Your task to perform on an android device: move an email to a new category in the gmail app Image 0: 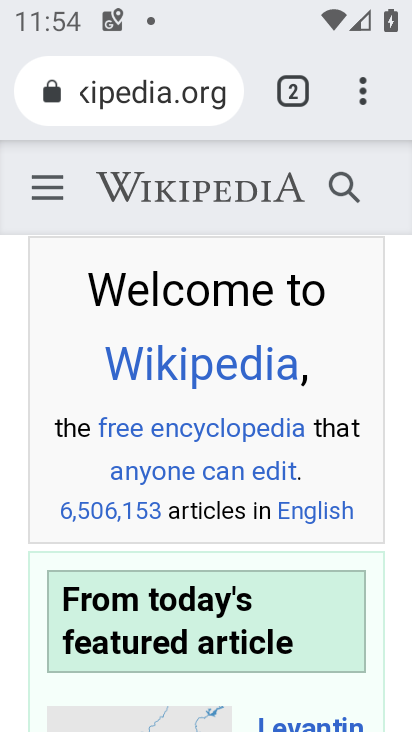
Step 0: press home button
Your task to perform on an android device: move an email to a new category in the gmail app Image 1: 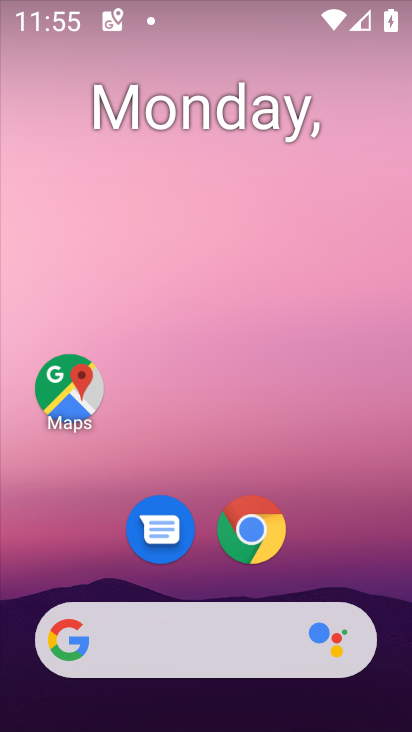
Step 1: drag from (240, 677) to (231, 186)
Your task to perform on an android device: move an email to a new category in the gmail app Image 2: 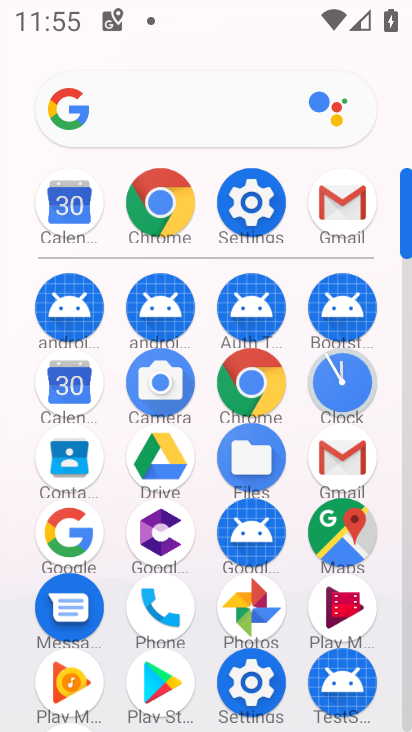
Step 2: click (368, 193)
Your task to perform on an android device: move an email to a new category in the gmail app Image 3: 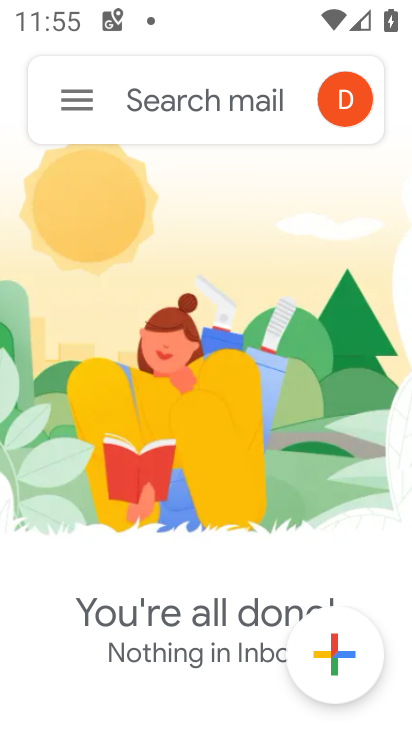
Step 3: click (77, 86)
Your task to perform on an android device: move an email to a new category in the gmail app Image 4: 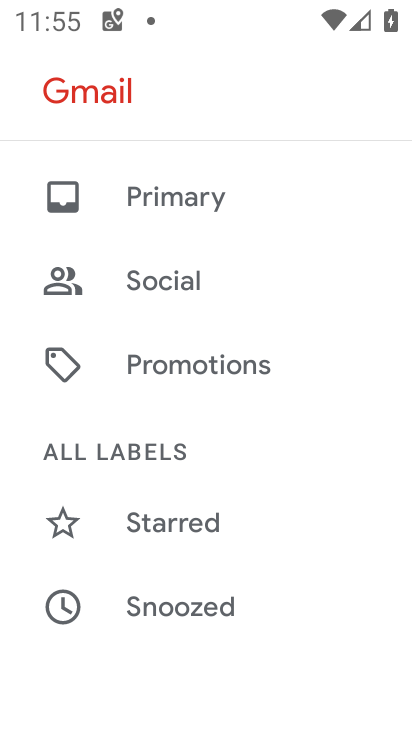
Step 4: drag from (144, 546) to (247, 92)
Your task to perform on an android device: move an email to a new category in the gmail app Image 5: 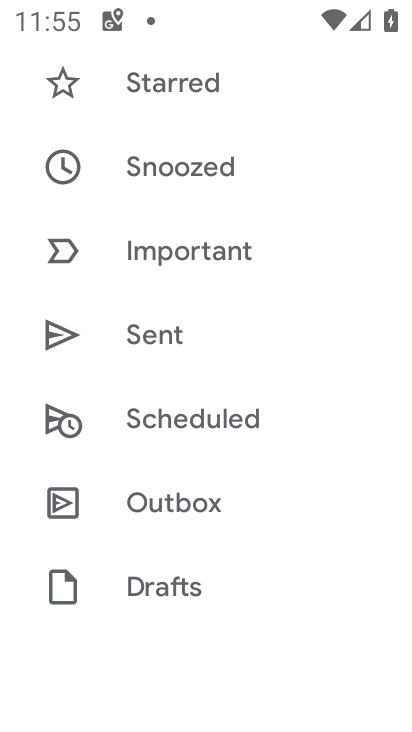
Step 5: drag from (218, 538) to (210, 344)
Your task to perform on an android device: move an email to a new category in the gmail app Image 6: 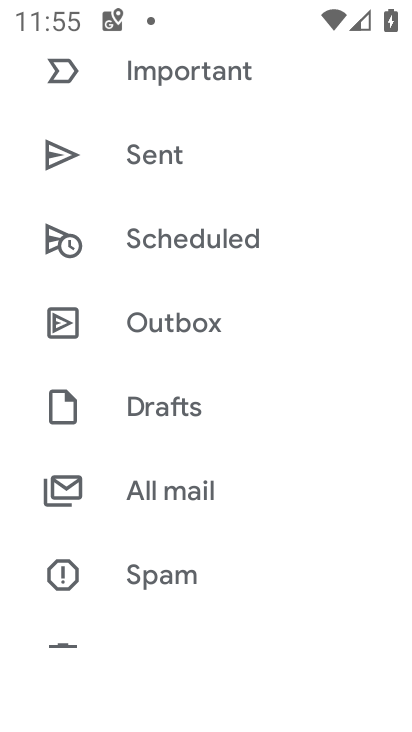
Step 6: drag from (142, 580) to (211, 309)
Your task to perform on an android device: move an email to a new category in the gmail app Image 7: 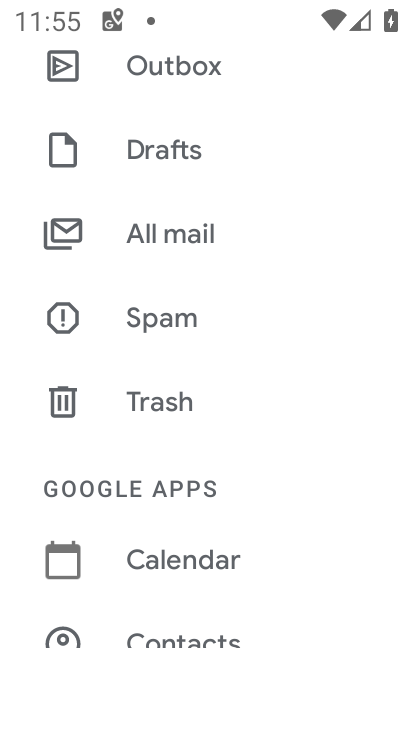
Step 7: drag from (154, 556) to (182, 390)
Your task to perform on an android device: move an email to a new category in the gmail app Image 8: 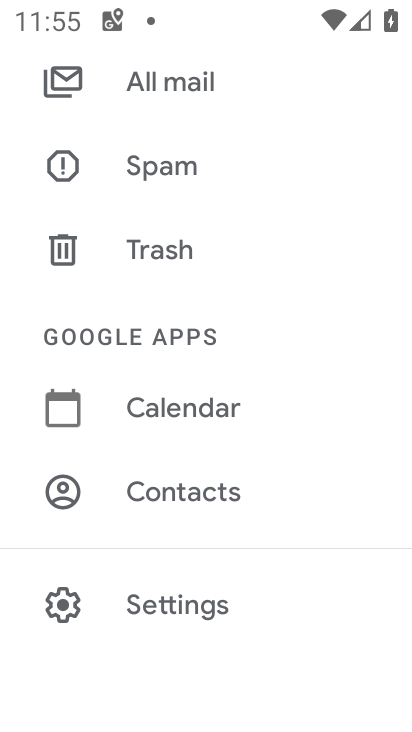
Step 8: click (149, 610)
Your task to perform on an android device: move an email to a new category in the gmail app Image 9: 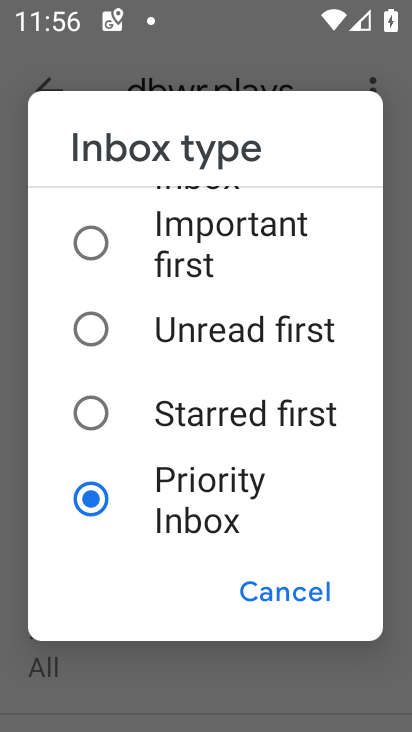
Step 9: click (264, 587)
Your task to perform on an android device: move an email to a new category in the gmail app Image 10: 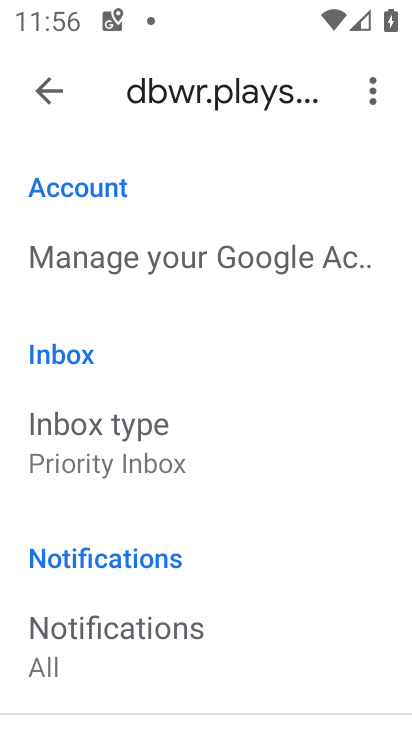
Step 10: click (149, 439)
Your task to perform on an android device: move an email to a new category in the gmail app Image 11: 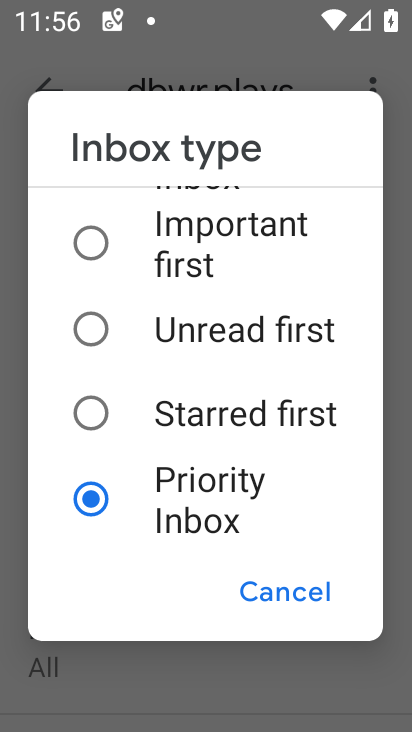
Step 11: click (168, 198)
Your task to perform on an android device: move an email to a new category in the gmail app Image 12: 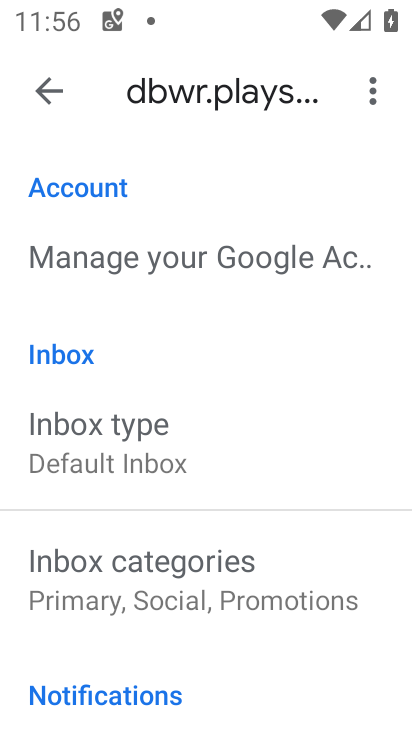
Step 12: click (120, 547)
Your task to perform on an android device: move an email to a new category in the gmail app Image 13: 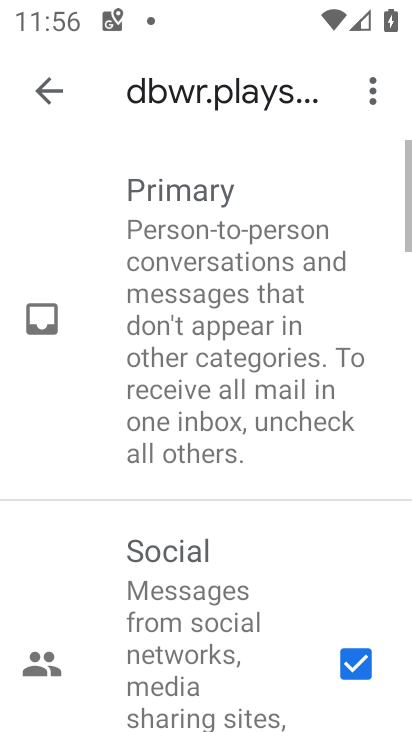
Step 13: task complete